Your task to perform on an android device: empty trash in the gmail app Image 0: 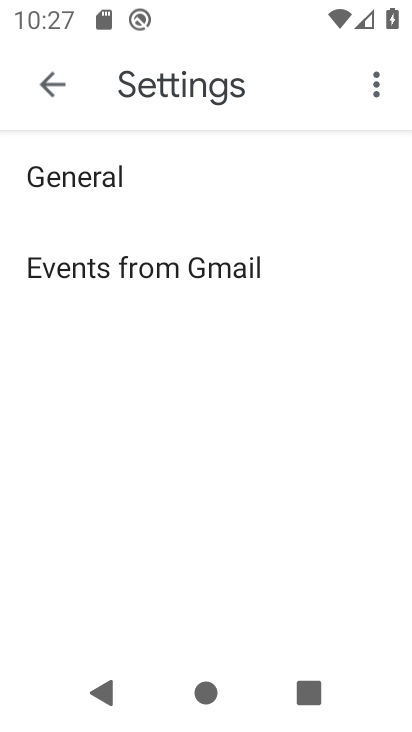
Step 0: press home button
Your task to perform on an android device: empty trash in the gmail app Image 1: 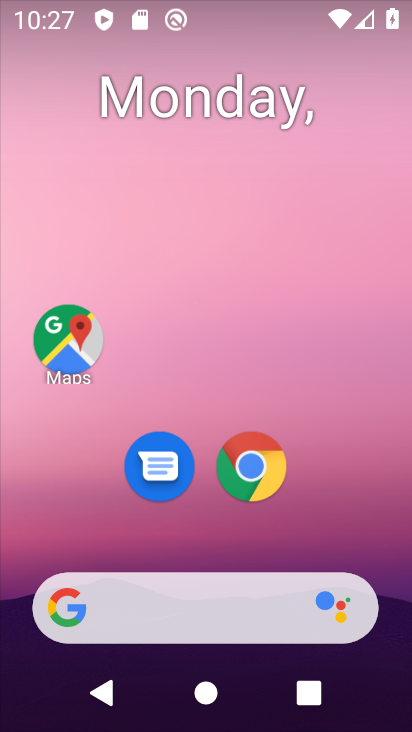
Step 1: drag from (217, 518) to (223, 63)
Your task to perform on an android device: empty trash in the gmail app Image 2: 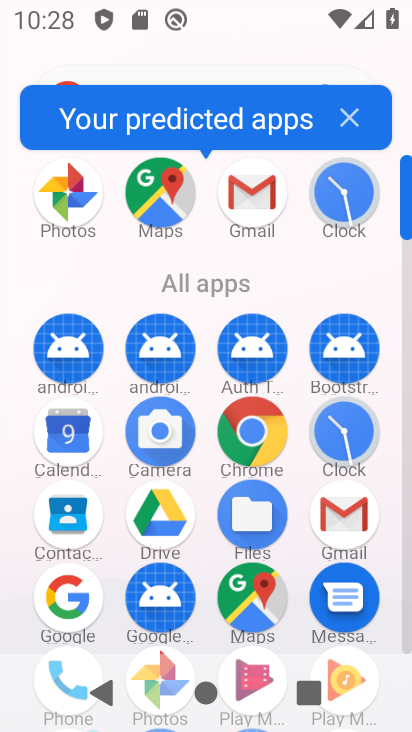
Step 2: click (245, 198)
Your task to perform on an android device: empty trash in the gmail app Image 3: 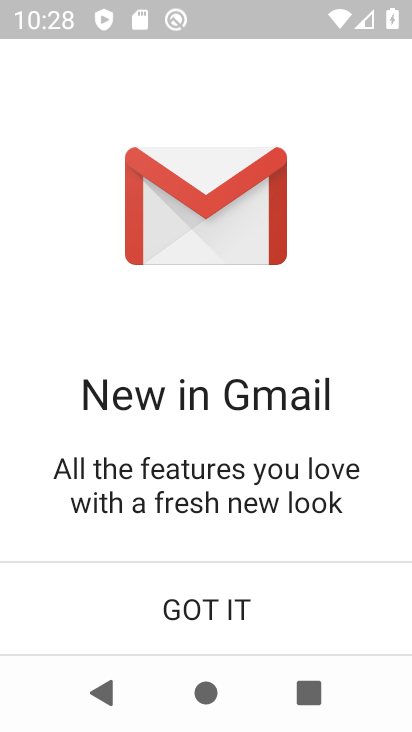
Step 3: click (175, 600)
Your task to perform on an android device: empty trash in the gmail app Image 4: 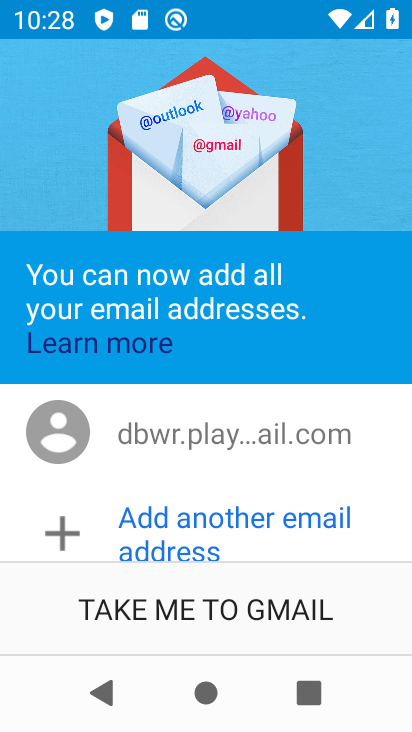
Step 4: click (163, 593)
Your task to perform on an android device: empty trash in the gmail app Image 5: 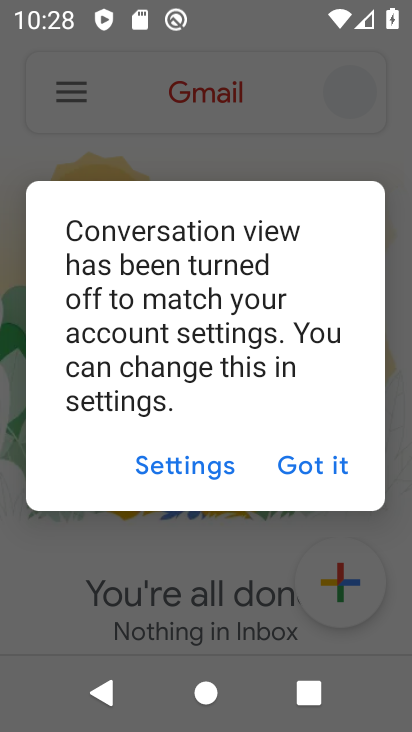
Step 5: click (309, 450)
Your task to perform on an android device: empty trash in the gmail app Image 6: 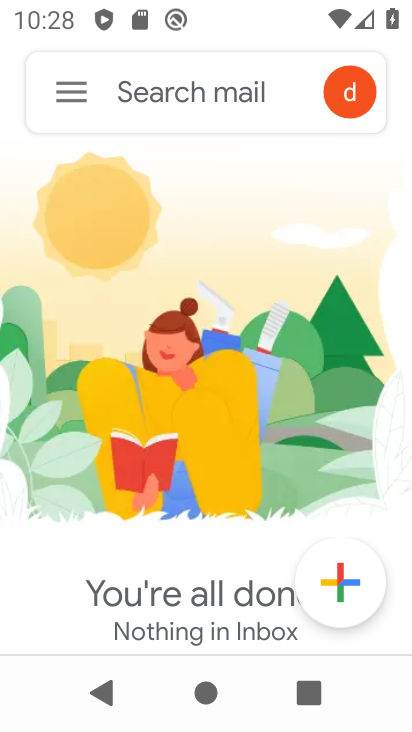
Step 6: click (75, 89)
Your task to perform on an android device: empty trash in the gmail app Image 7: 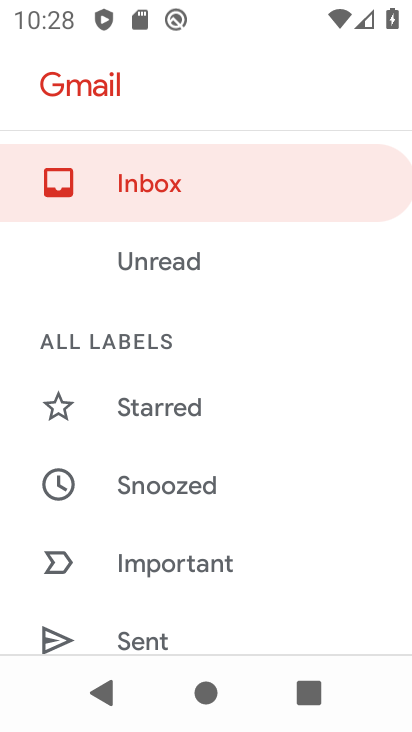
Step 7: drag from (120, 535) to (161, 169)
Your task to perform on an android device: empty trash in the gmail app Image 8: 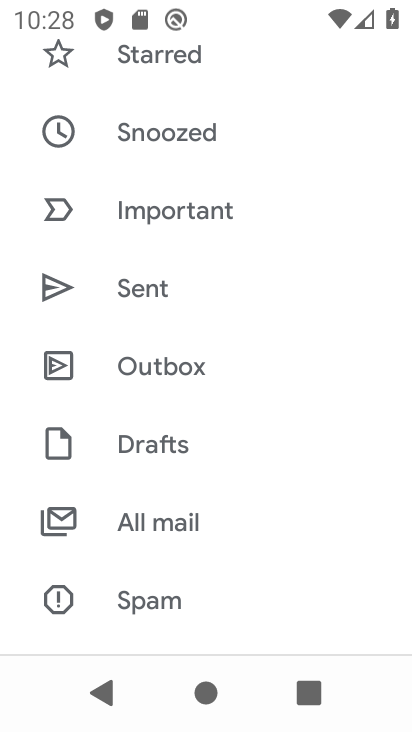
Step 8: click (152, 527)
Your task to perform on an android device: empty trash in the gmail app Image 9: 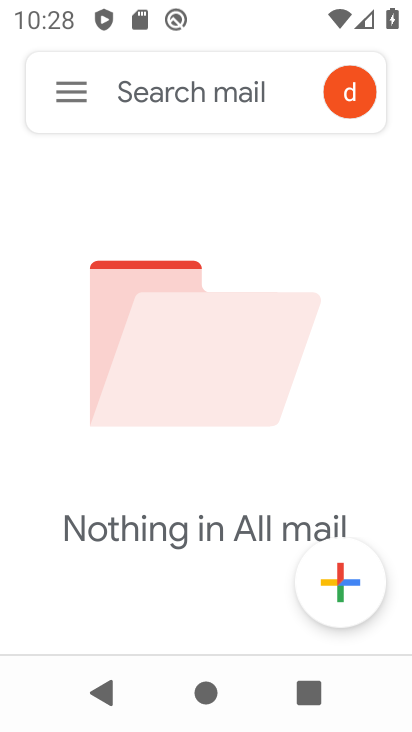
Step 9: click (70, 91)
Your task to perform on an android device: empty trash in the gmail app Image 10: 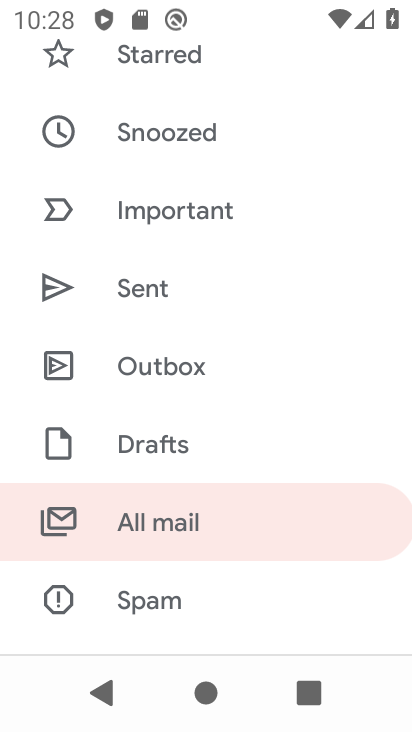
Step 10: drag from (158, 576) to (196, 353)
Your task to perform on an android device: empty trash in the gmail app Image 11: 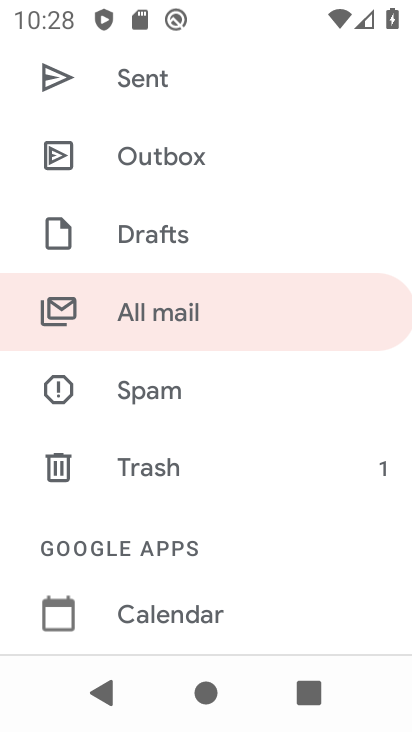
Step 11: click (164, 471)
Your task to perform on an android device: empty trash in the gmail app Image 12: 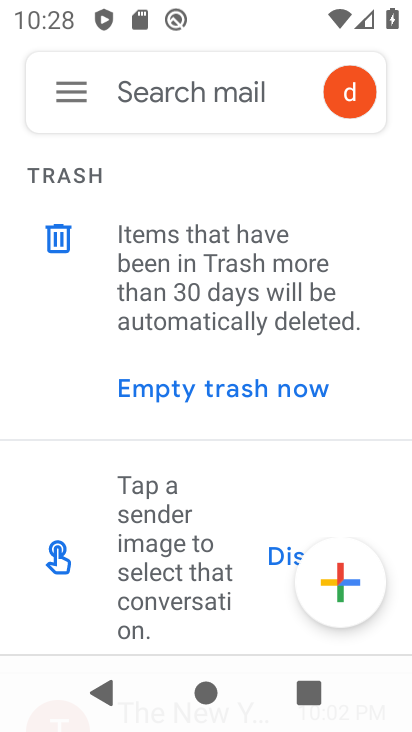
Step 12: click (168, 399)
Your task to perform on an android device: empty trash in the gmail app Image 13: 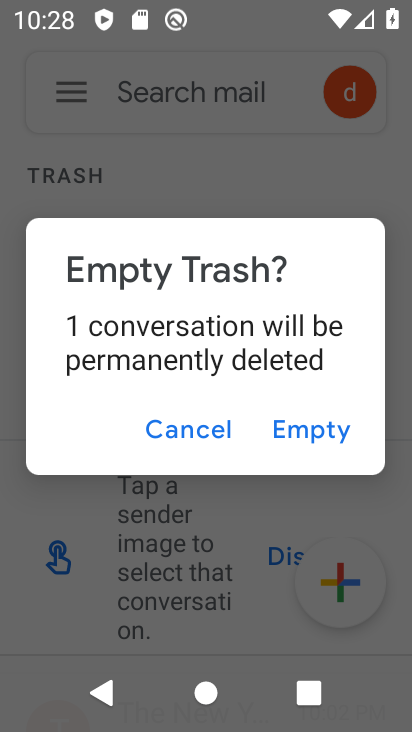
Step 13: click (283, 416)
Your task to perform on an android device: empty trash in the gmail app Image 14: 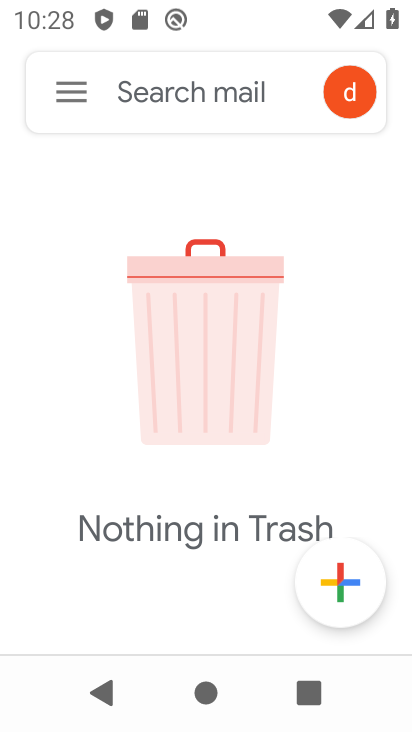
Step 14: task complete